Your task to perform on an android device: Open Google Maps and go to "Timeline" Image 0: 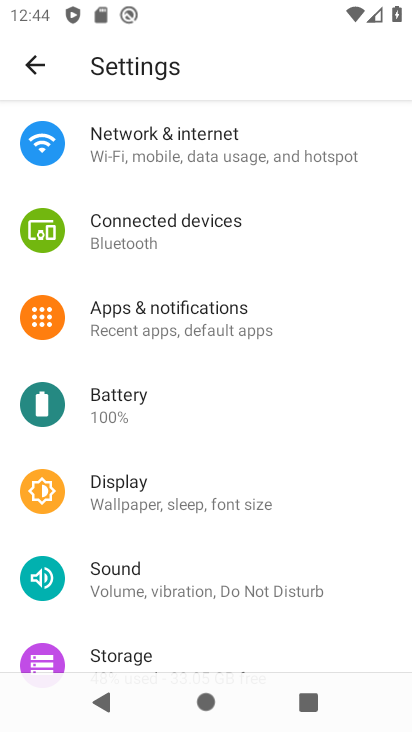
Step 0: press home button
Your task to perform on an android device: Open Google Maps and go to "Timeline" Image 1: 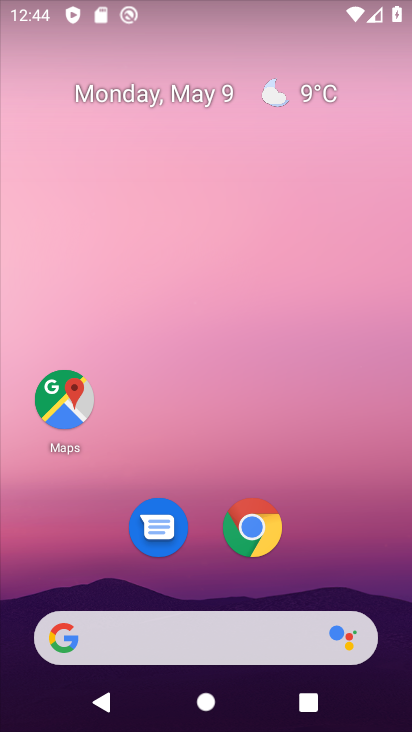
Step 1: click (63, 396)
Your task to perform on an android device: Open Google Maps and go to "Timeline" Image 2: 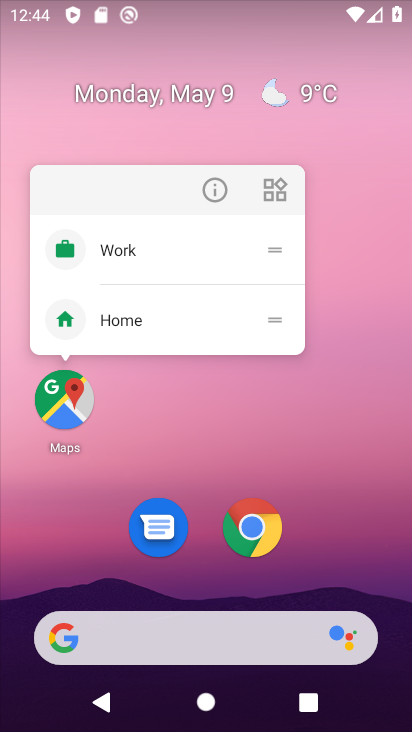
Step 2: click (215, 186)
Your task to perform on an android device: Open Google Maps and go to "Timeline" Image 3: 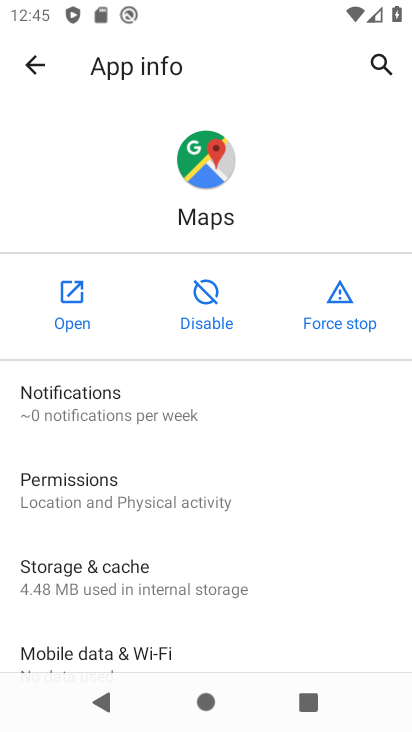
Step 3: click (80, 309)
Your task to perform on an android device: Open Google Maps and go to "Timeline" Image 4: 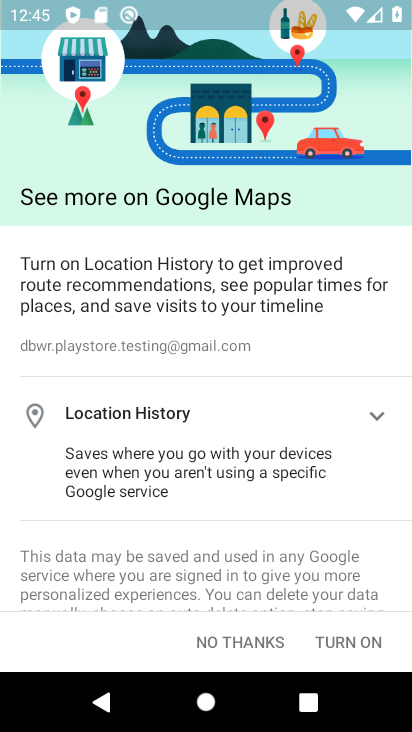
Step 4: click (253, 640)
Your task to perform on an android device: Open Google Maps and go to "Timeline" Image 5: 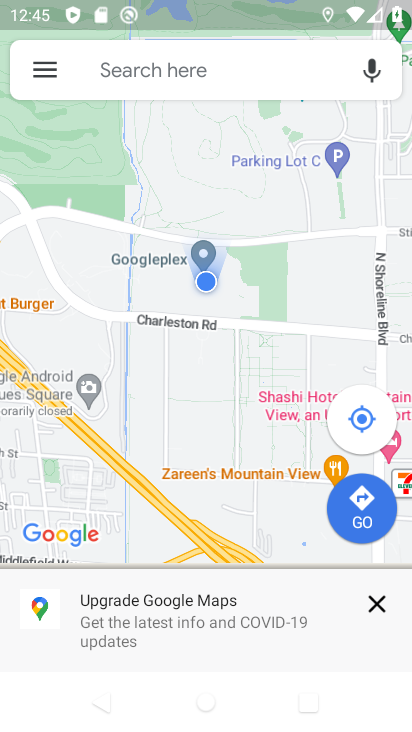
Step 5: click (372, 602)
Your task to perform on an android device: Open Google Maps and go to "Timeline" Image 6: 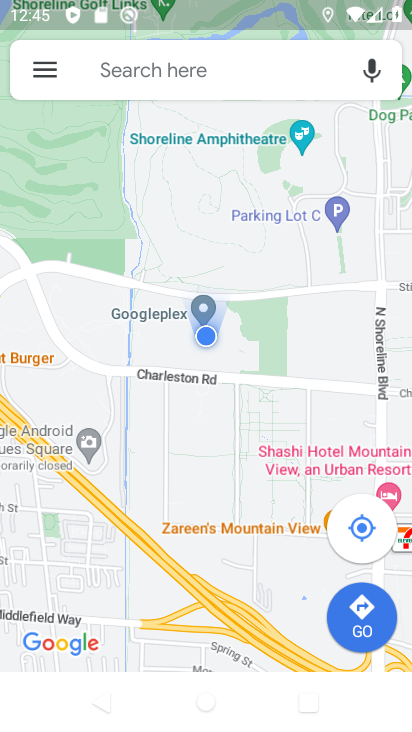
Step 6: click (45, 74)
Your task to perform on an android device: Open Google Maps and go to "Timeline" Image 7: 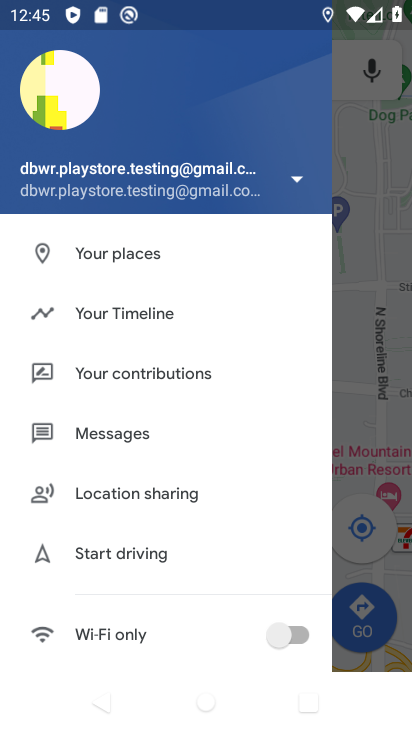
Step 7: click (135, 317)
Your task to perform on an android device: Open Google Maps and go to "Timeline" Image 8: 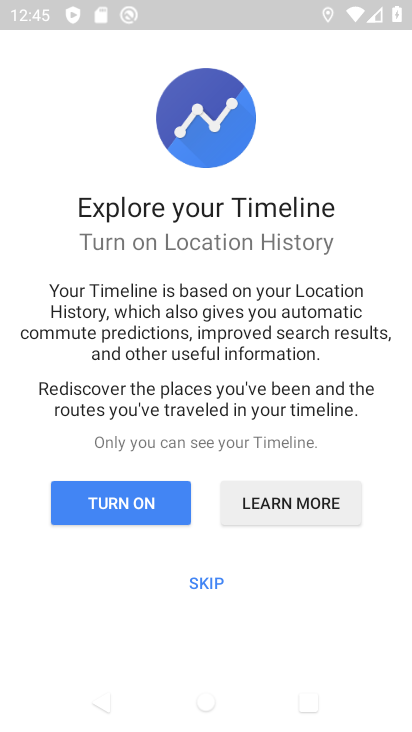
Step 8: click (206, 578)
Your task to perform on an android device: Open Google Maps and go to "Timeline" Image 9: 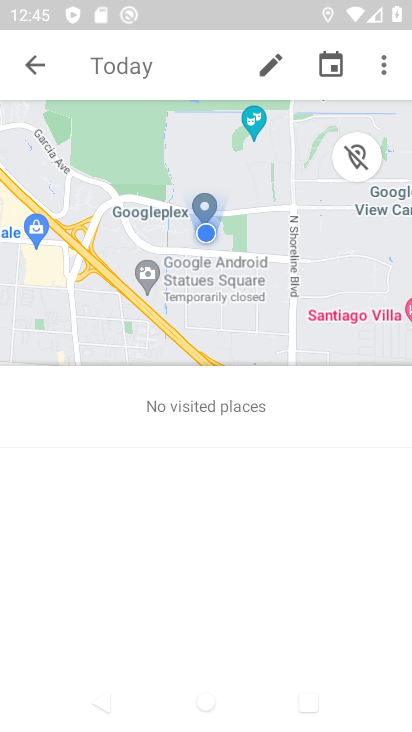
Step 9: task complete